Your task to perform on an android device: Turn off the flashlight Image 0: 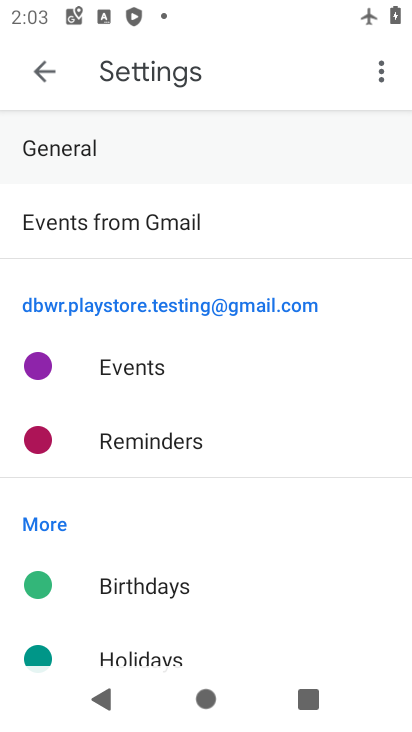
Step 0: press home button
Your task to perform on an android device: Turn off the flashlight Image 1: 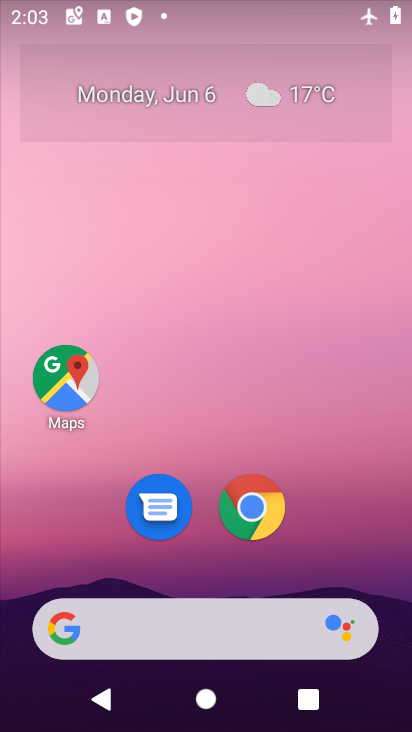
Step 1: drag from (195, 443) to (243, 16)
Your task to perform on an android device: Turn off the flashlight Image 2: 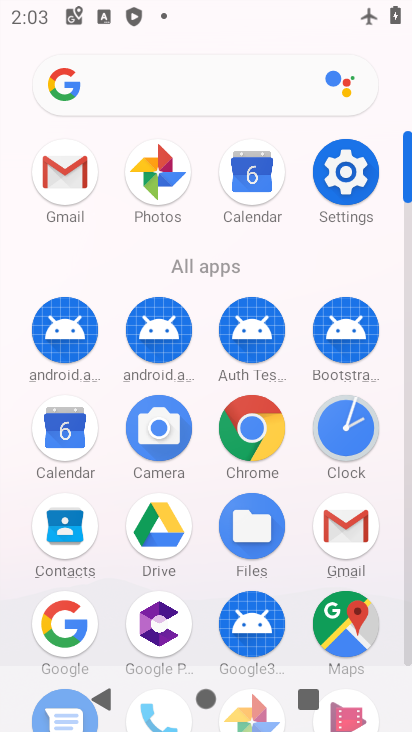
Step 2: click (344, 179)
Your task to perform on an android device: Turn off the flashlight Image 3: 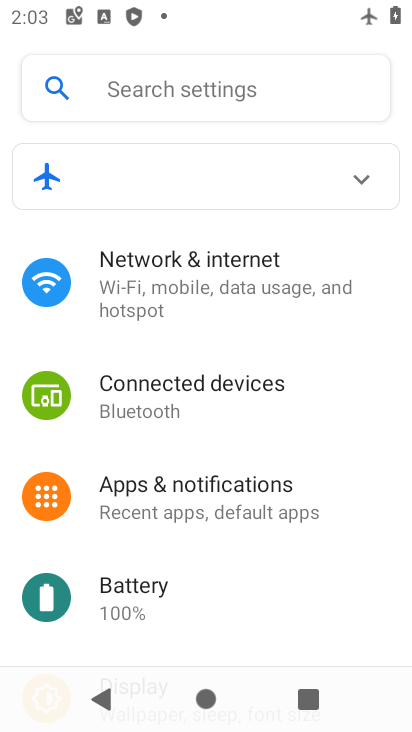
Step 3: click (283, 96)
Your task to perform on an android device: Turn off the flashlight Image 4: 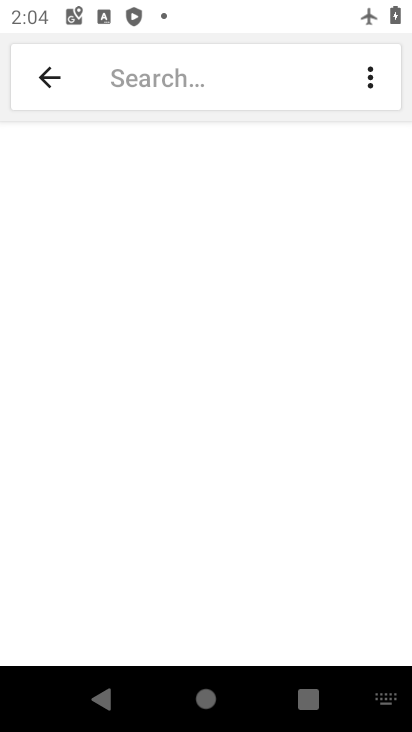
Step 4: type "Flashlight"
Your task to perform on an android device: Turn off the flashlight Image 5: 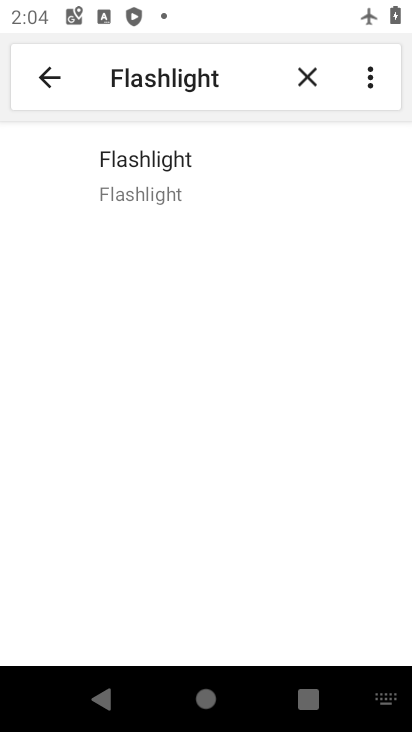
Step 5: click (159, 170)
Your task to perform on an android device: Turn off the flashlight Image 6: 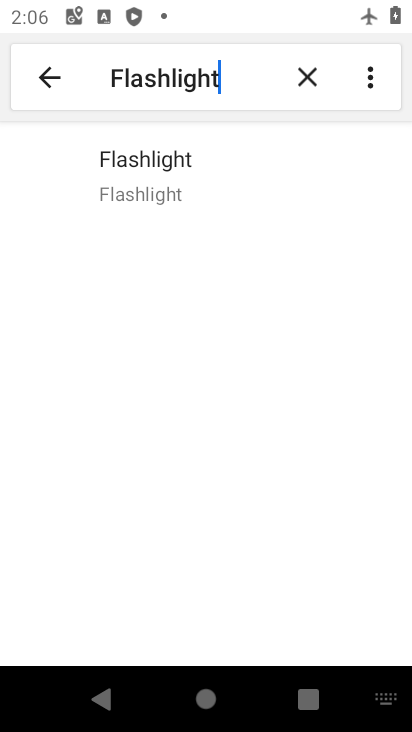
Step 6: task complete